Your task to perform on an android device: open app "Roku - Official Remote Control" (install if not already installed), go to login, and select forgot password Image 0: 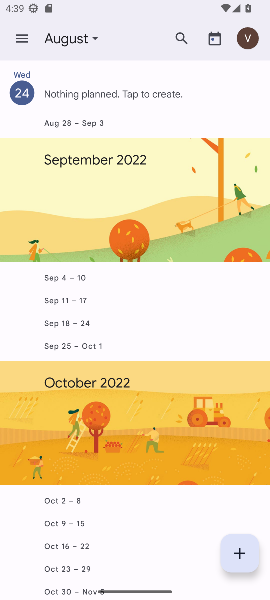
Step 0: press home button
Your task to perform on an android device: open app "Roku - Official Remote Control" (install if not already installed), go to login, and select forgot password Image 1: 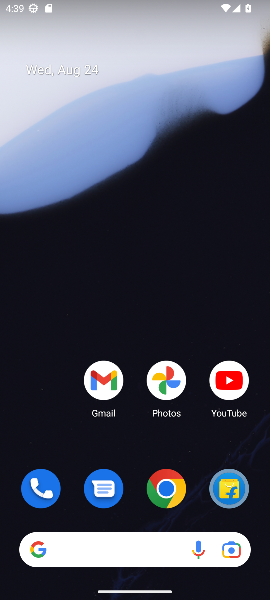
Step 1: drag from (135, 507) to (121, 98)
Your task to perform on an android device: open app "Roku - Official Remote Control" (install if not already installed), go to login, and select forgot password Image 2: 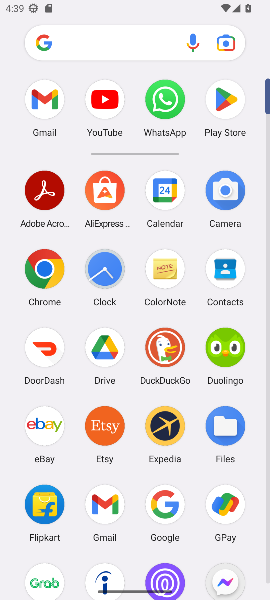
Step 2: click (222, 103)
Your task to perform on an android device: open app "Roku - Official Remote Control" (install if not already installed), go to login, and select forgot password Image 3: 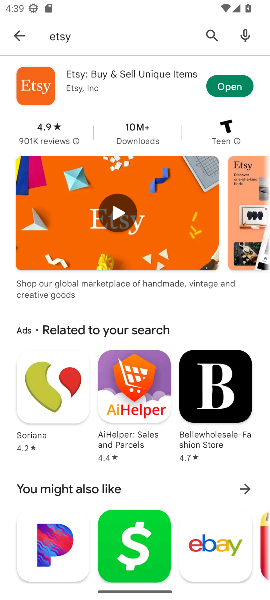
Step 3: click (202, 44)
Your task to perform on an android device: open app "Roku - Official Remote Control" (install if not already installed), go to login, and select forgot password Image 4: 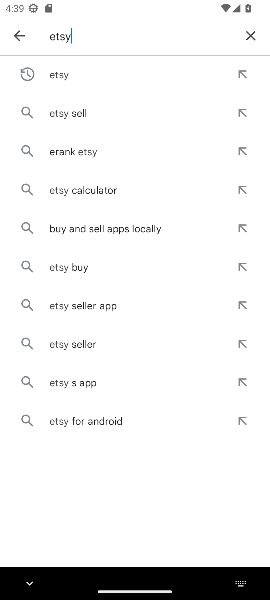
Step 4: click (248, 39)
Your task to perform on an android device: open app "Roku - Official Remote Control" (install if not already installed), go to login, and select forgot password Image 5: 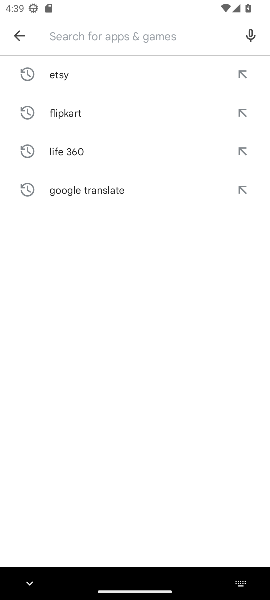
Step 5: type "roku"
Your task to perform on an android device: open app "Roku - Official Remote Control" (install if not already installed), go to login, and select forgot password Image 6: 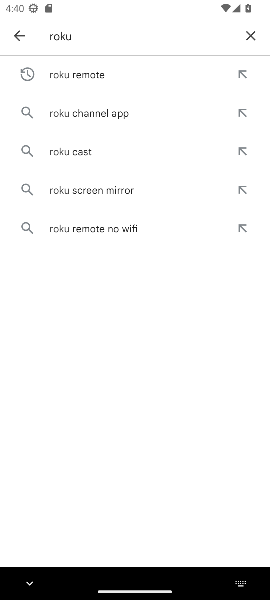
Step 6: click (128, 77)
Your task to perform on an android device: open app "Roku - Official Remote Control" (install if not already installed), go to login, and select forgot password Image 7: 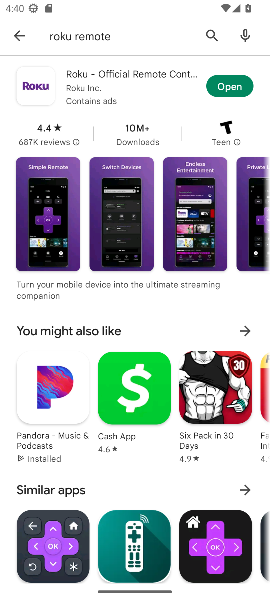
Step 7: click (237, 84)
Your task to perform on an android device: open app "Roku - Official Remote Control" (install if not already installed), go to login, and select forgot password Image 8: 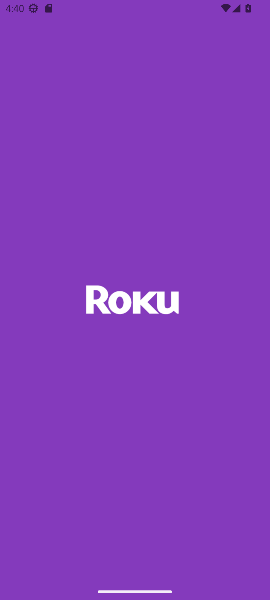
Step 8: task complete